Your task to perform on an android device: Go to CNN.com Image 0: 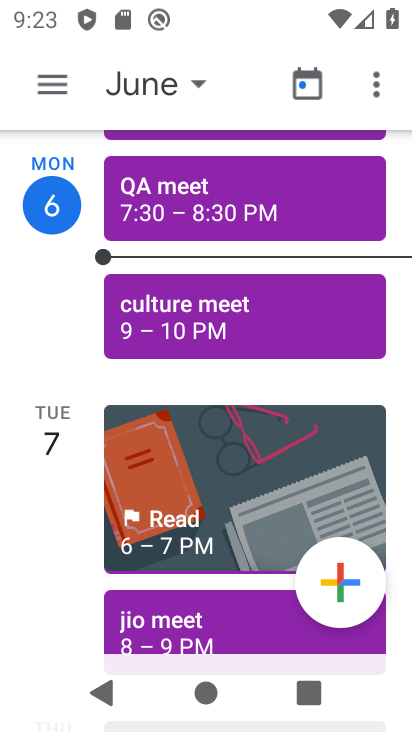
Step 0: press home button
Your task to perform on an android device: Go to CNN.com Image 1: 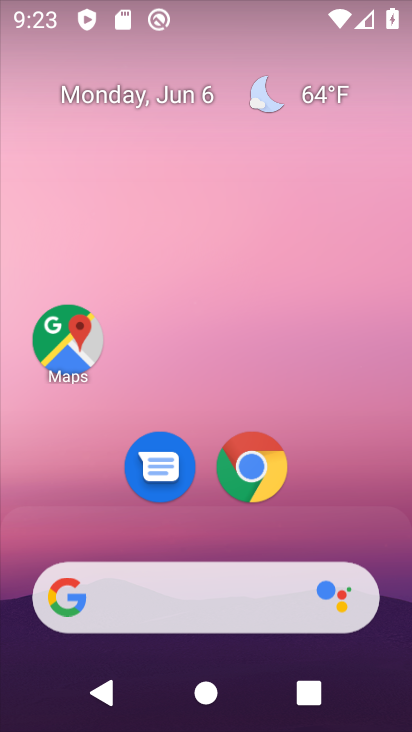
Step 1: click (204, 630)
Your task to perform on an android device: Go to CNN.com Image 2: 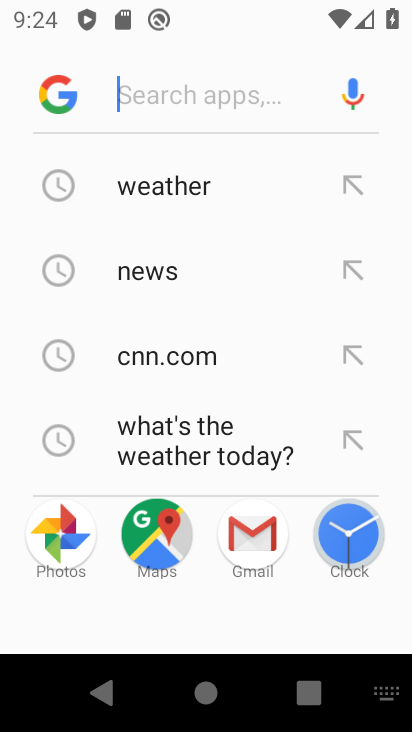
Step 2: type "CNN.com"
Your task to perform on an android device: Go to CNN.com Image 3: 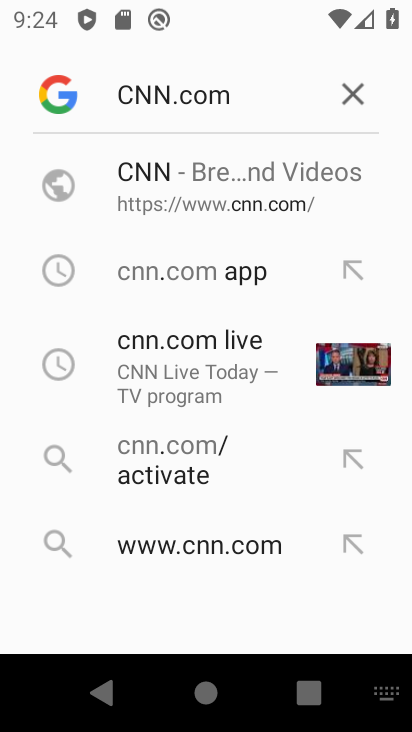
Step 3: type "xz"
Your task to perform on an android device: Go to CNN.com Image 4: 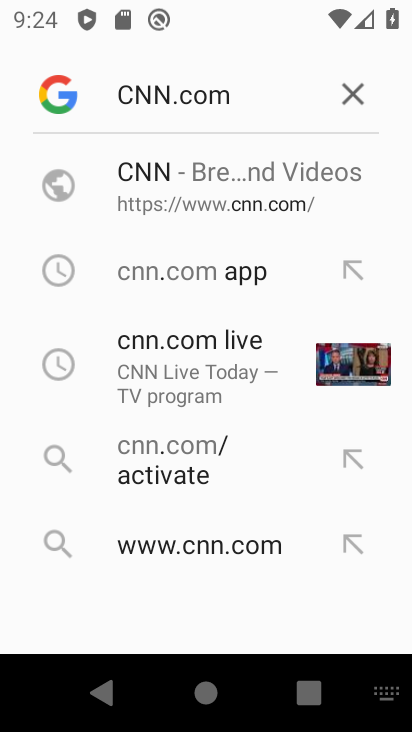
Step 4: click (204, 188)
Your task to perform on an android device: Go to CNN.com Image 5: 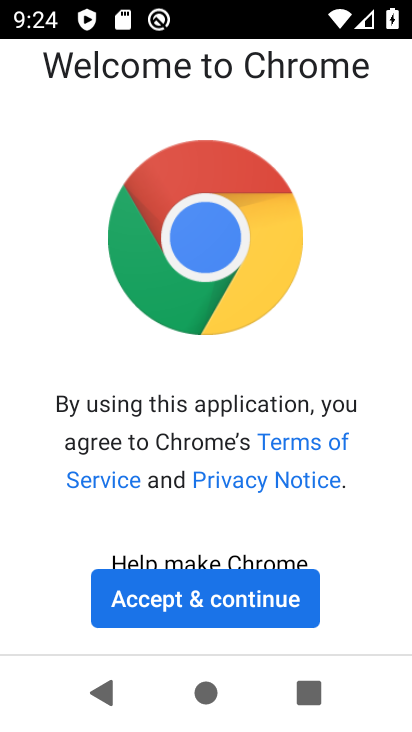
Step 5: click (195, 608)
Your task to perform on an android device: Go to CNN.com Image 6: 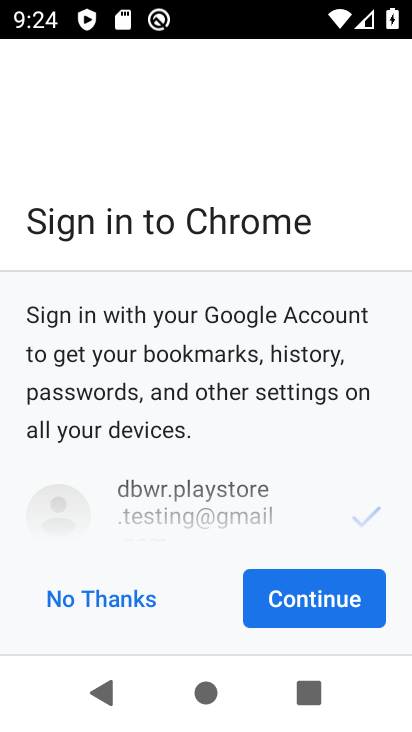
Step 6: click (314, 588)
Your task to perform on an android device: Go to CNN.com Image 7: 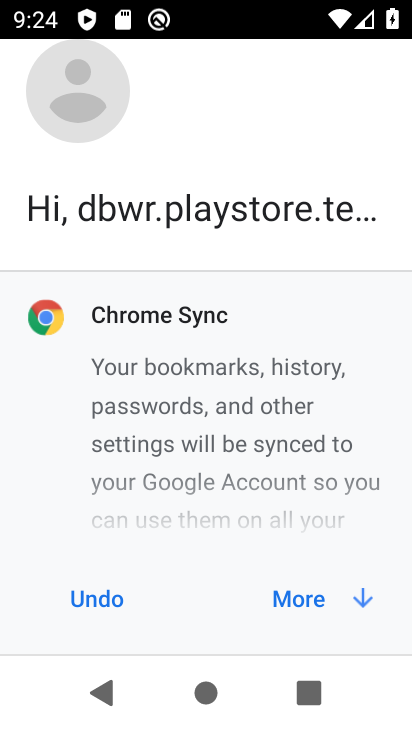
Step 7: click (314, 590)
Your task to perform on an android device: Go to CNN.com Image 8: 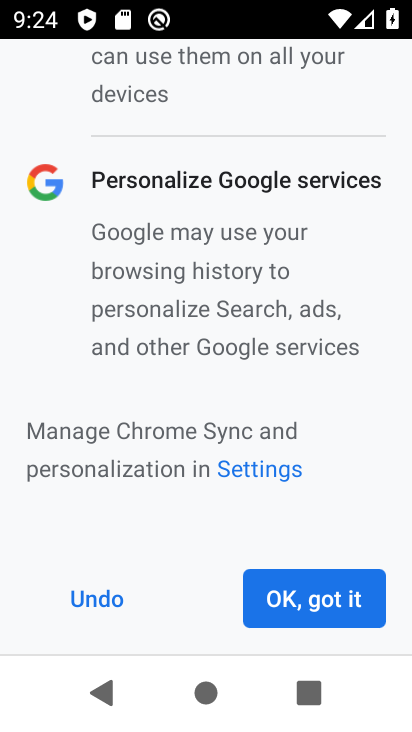
Step 8: click (314, 590)
Your task to perform on an android device: Go to CNN.com Image 9: 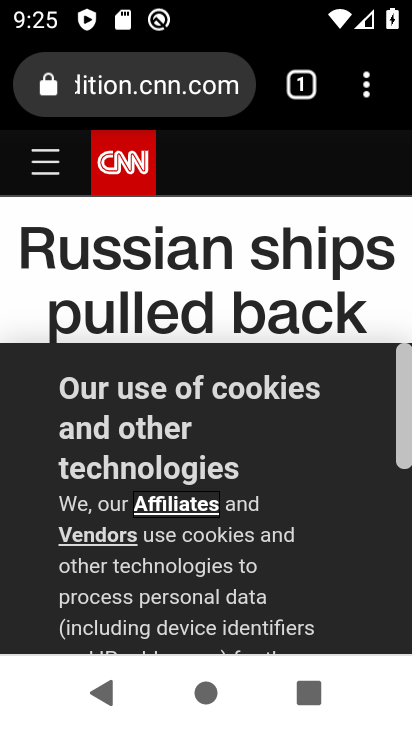
Step 9: task complete